Your task to perform on an android device: Check the news Image 0: 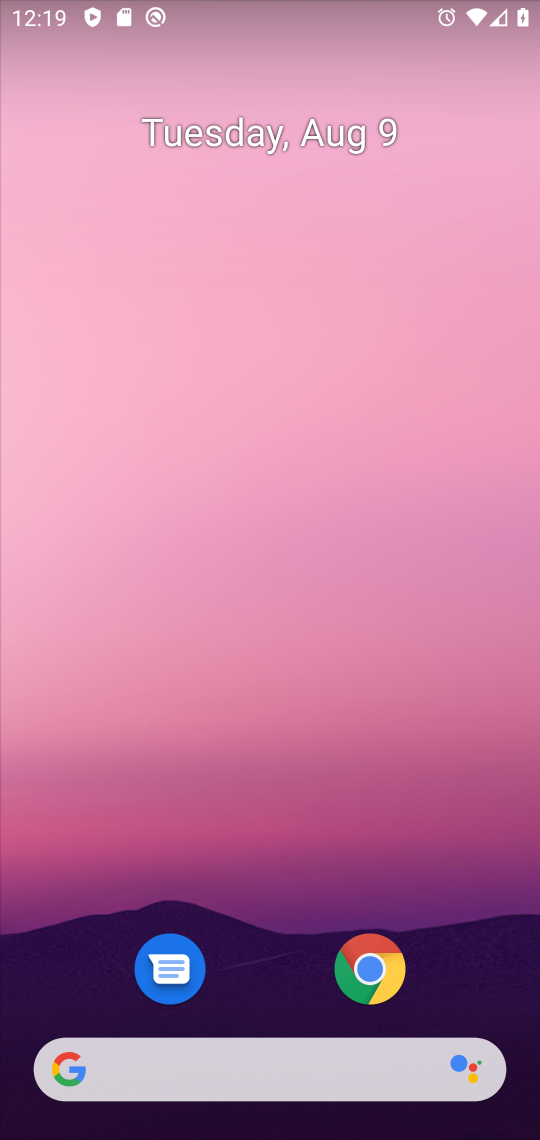
Step 0: drag from (237, 481) to (229, 306)
Your task to perform on an android device: Check the news Image 1: 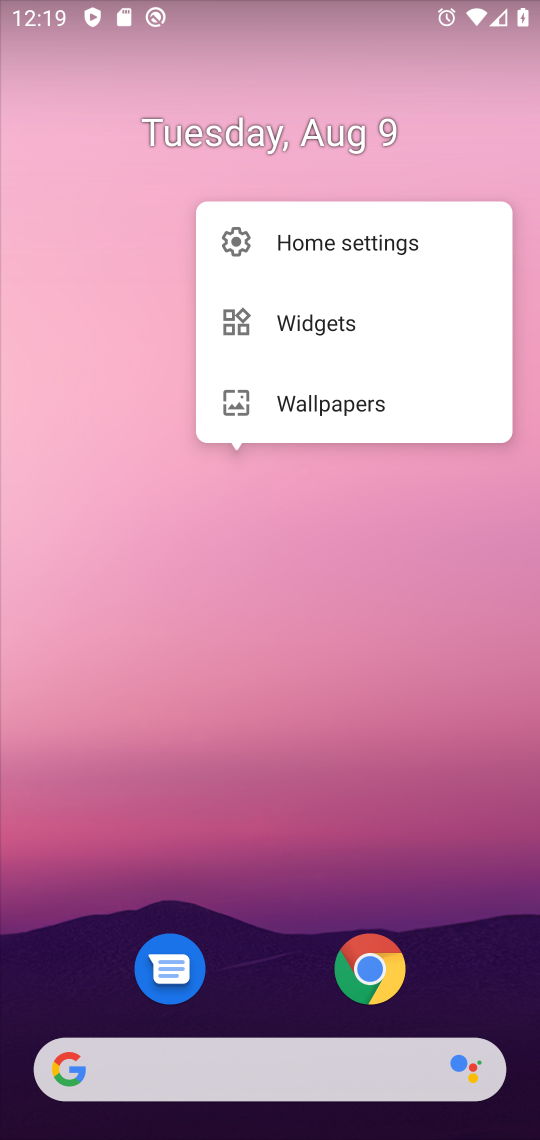
Step 1: click (268, 763)
Your task to perform on an android device: Check the news Image 2: 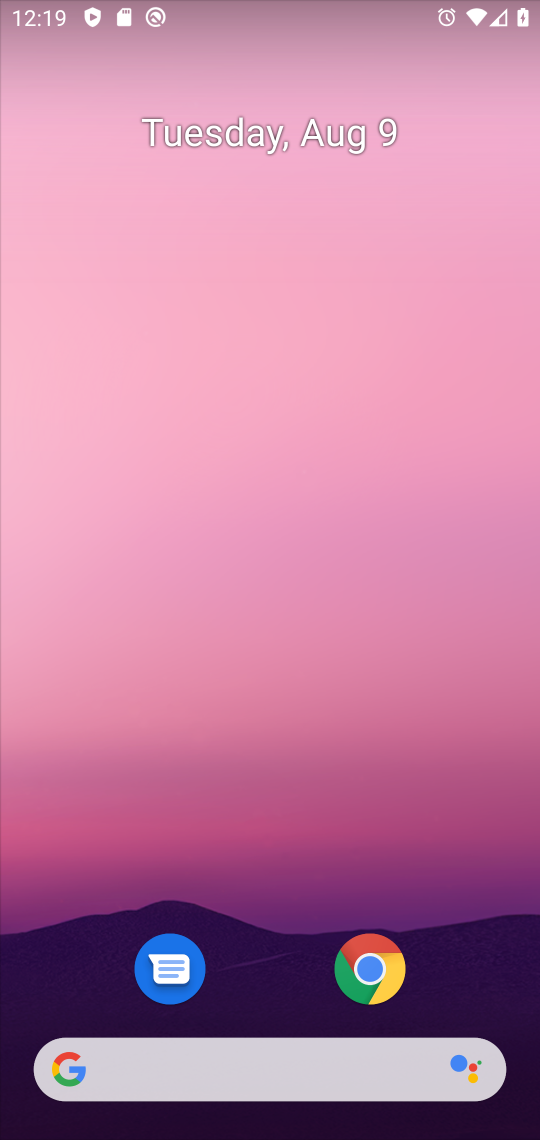
Step 2: drag from (245, 958) to (140, 185)
Your task to perform on an android device: Check the news Image 3: 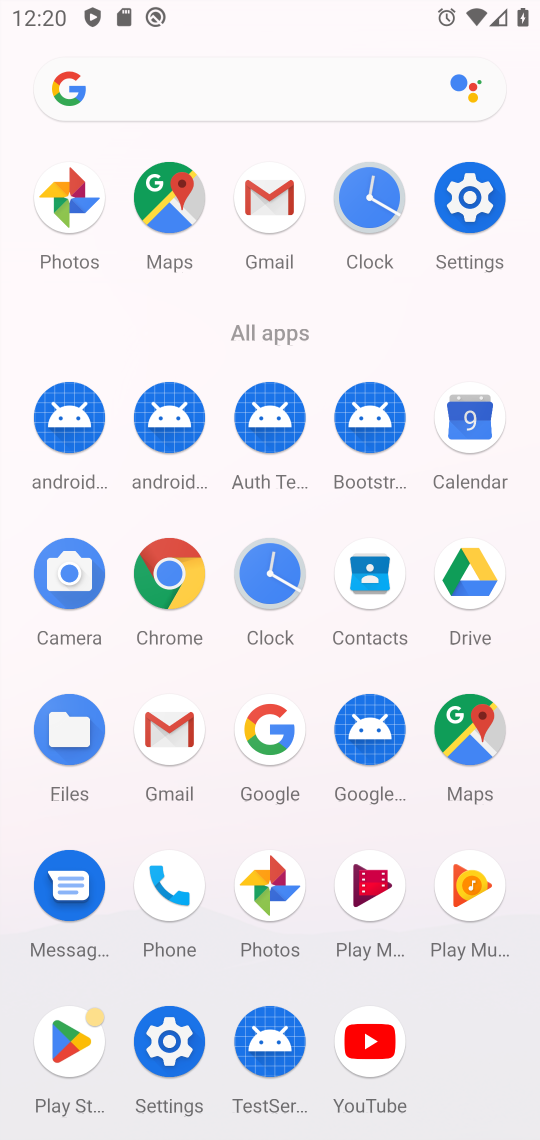
Step 3: click (306, 90)
Your task to perform on an android device: Check the news Image 4: 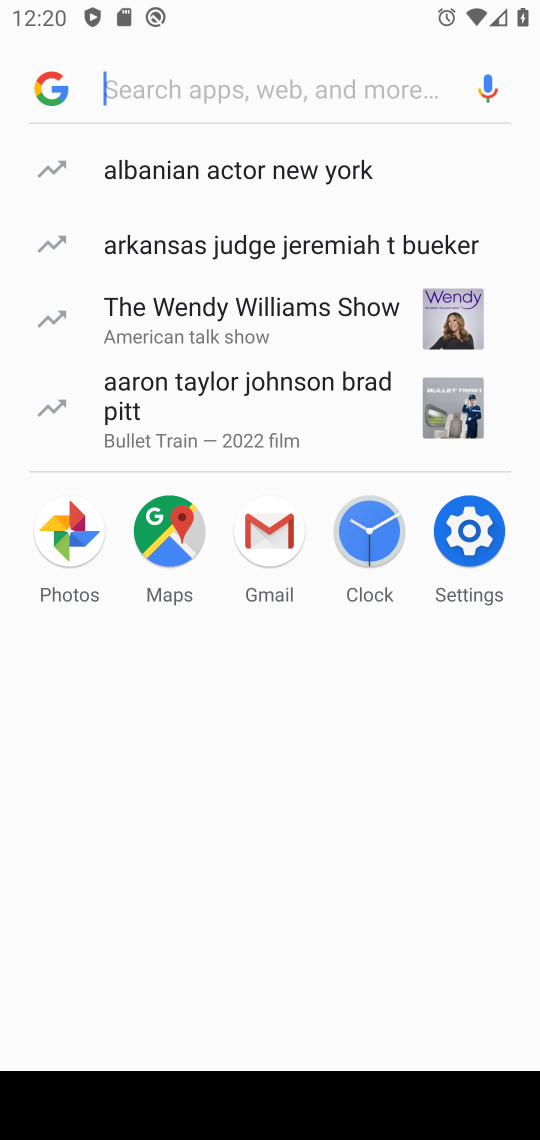
Step 4: type "Check the news"
Your task to perform on an android device: Check the news Image 5: 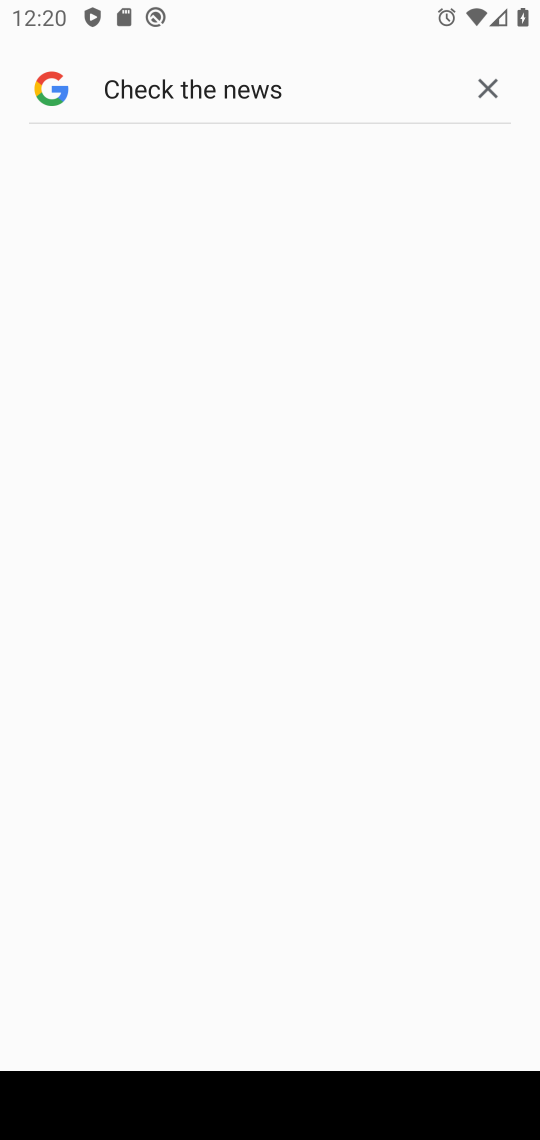
Step 5: drag from (357, 515) to (334, 185)
Your task to perform on an android device: Check the news Image 6: 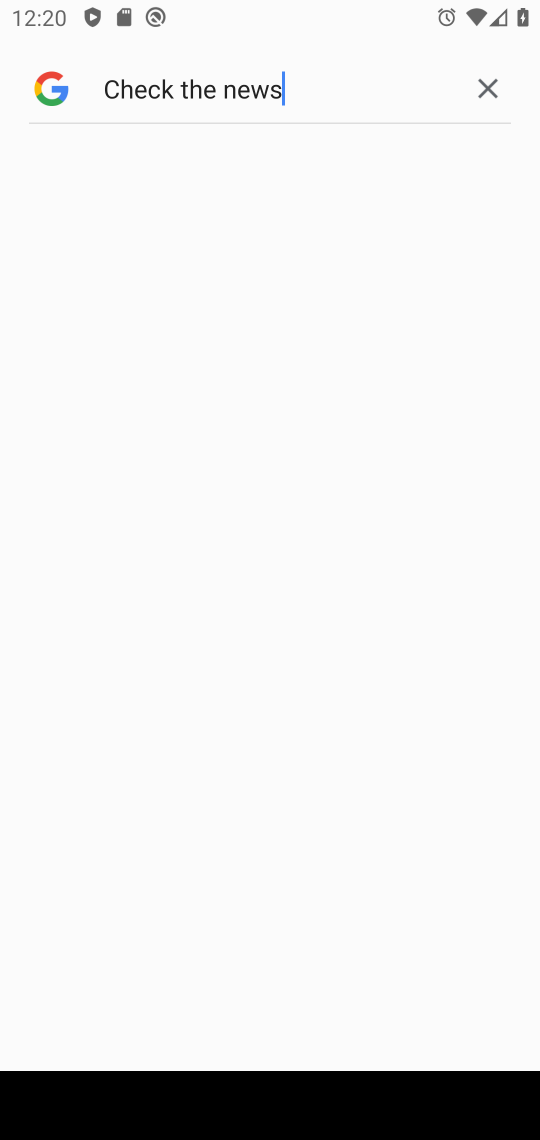
Step 6: drag from (310, 700) to (338, 342)
Your task to perform on an android device: Check the news Image 7: 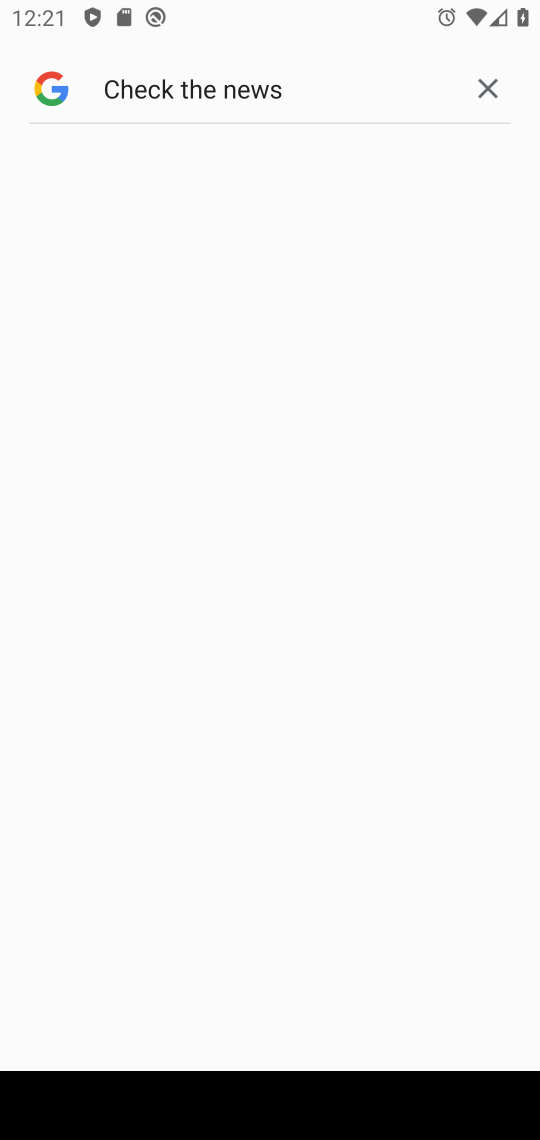
Step 7: drag from (221, 415) to (296, 509)
Your task to perform on an android device: Check the news Image 8: 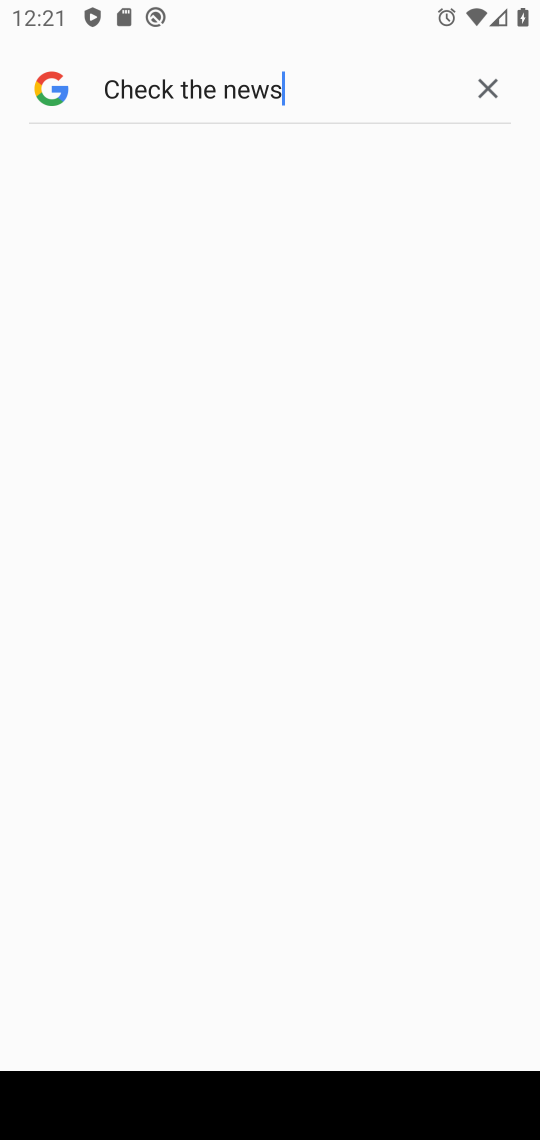
Step 8: click (261, 210)
Your task to perform on an android device: Check the news Image 9: 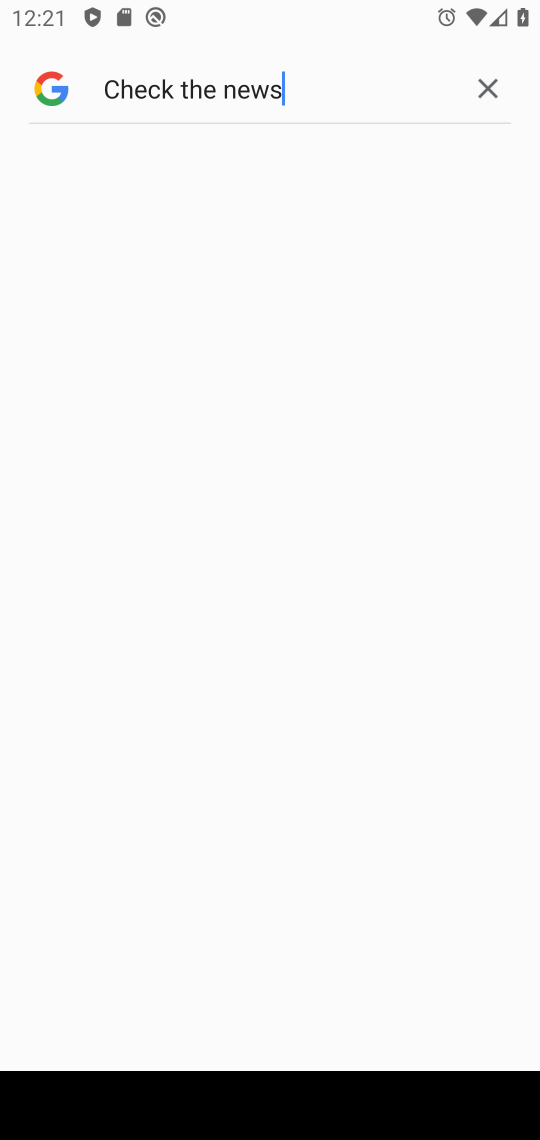
Step 9: click (489, 85)
Your task to perform on an android device: Check the news Image 10: 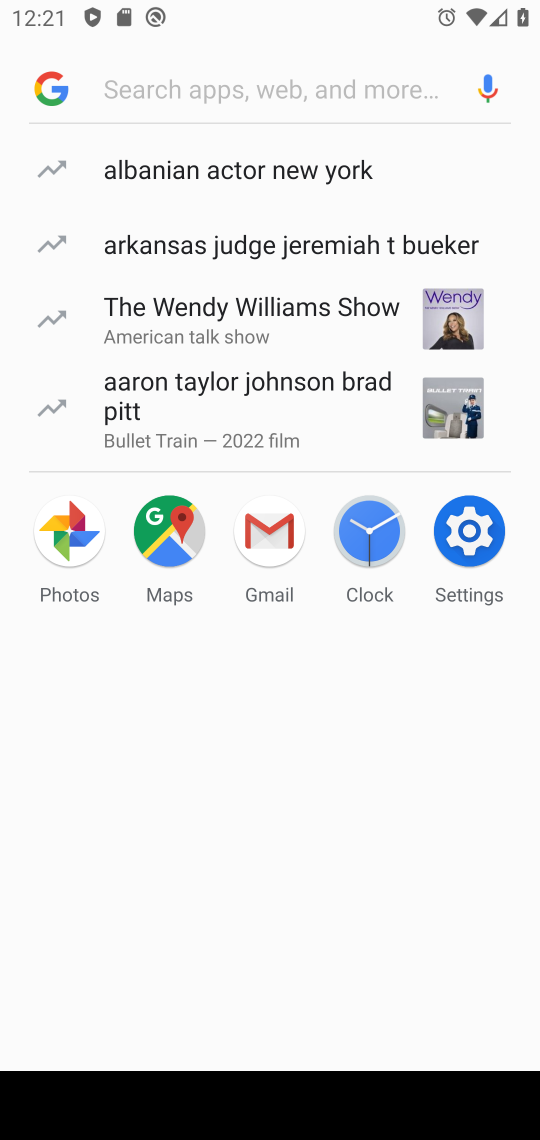
Step 10: type "news"
Your task to perform on an android device: Check the news Image 11: 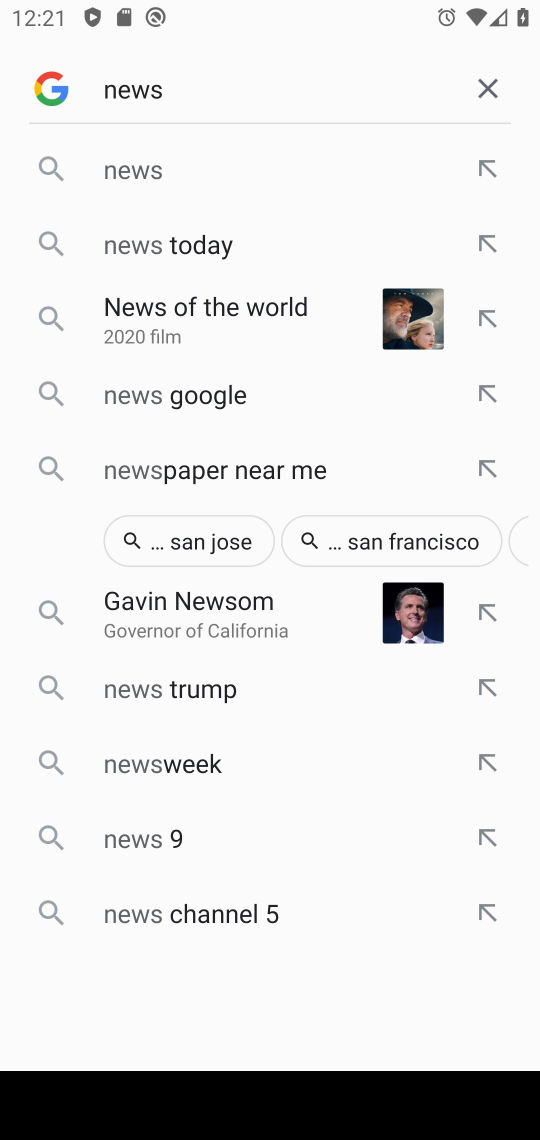
Step 11: click (142, 173)
Your task to perform on an android device: Check the news Image 12: 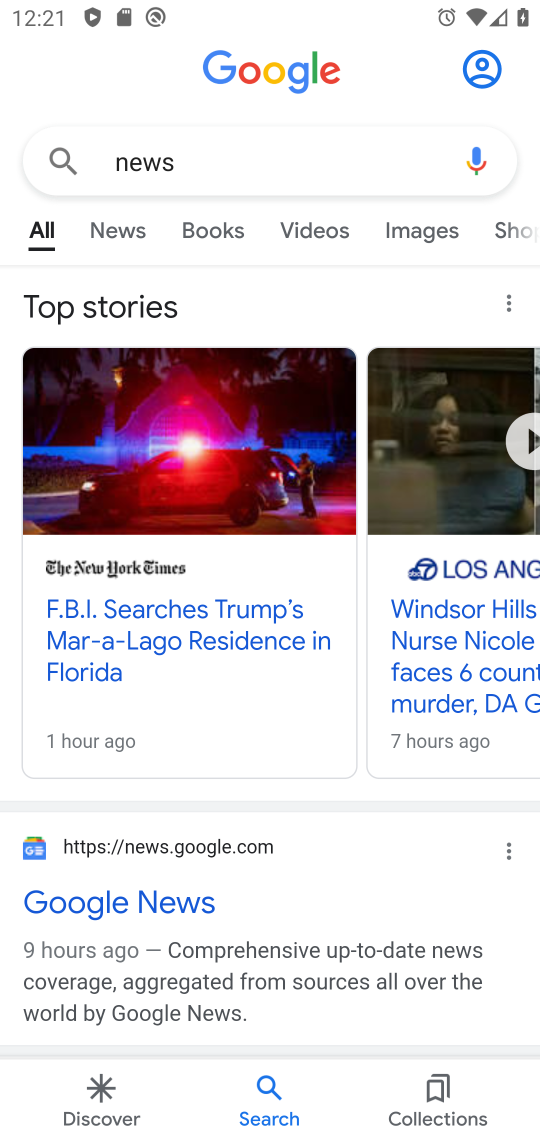
Step 12: task complete